Your task to perform on an android device: Open eBay Image 0: 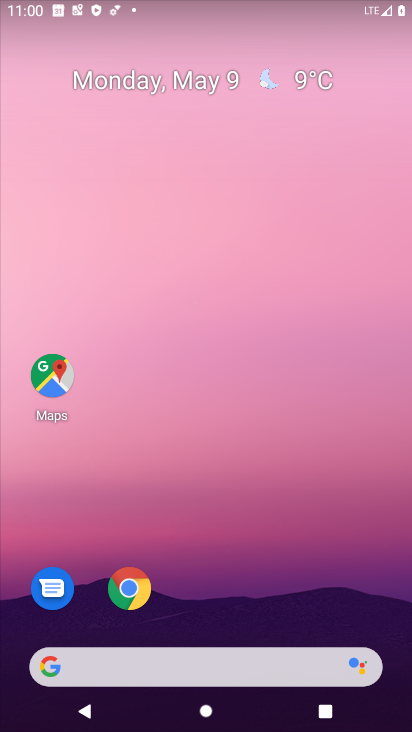
Step 0: drag from (149, 657) to (304, 108)
Your task to perform on an android device: Open eBay Image 1: 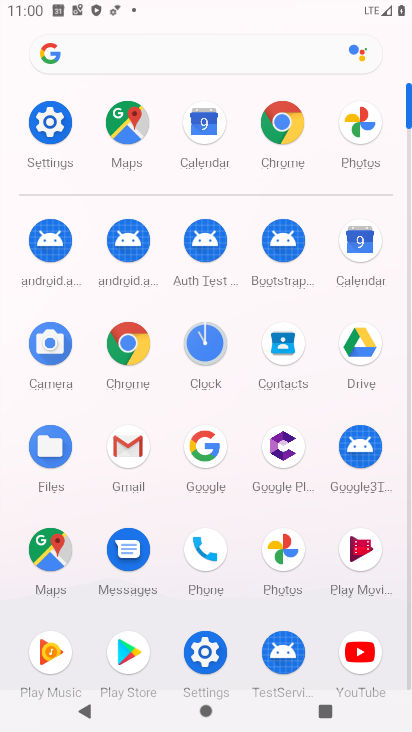
Step 1: click (281, 126)
Your task to perform on an android device: Open eBay Image 2: 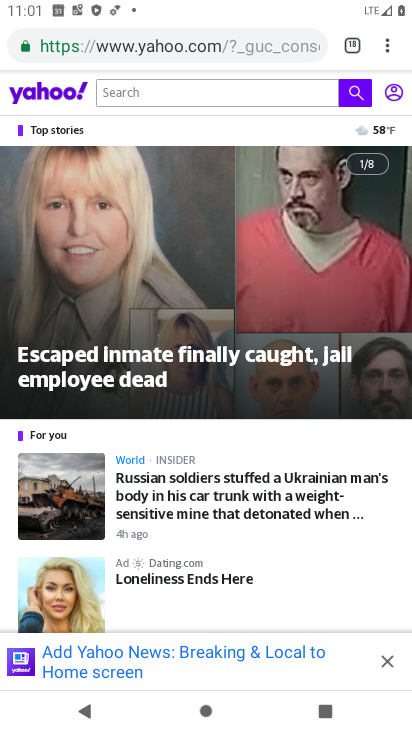
Step 2: drag from (390, 42) to (338, 90)
Your task to perform on an android device: Open eBay Image 3: 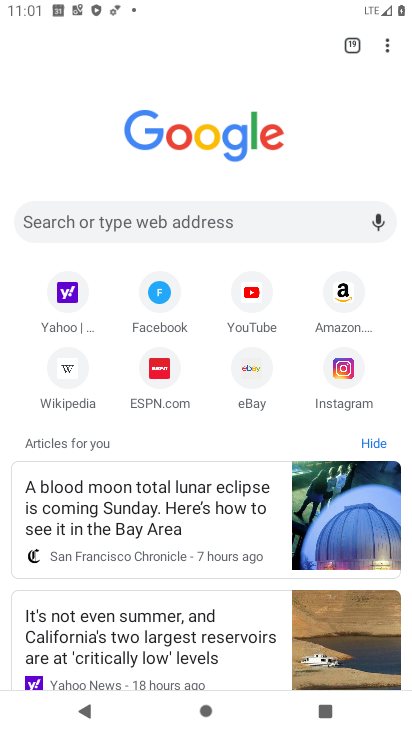
Step 3: click (253, 373)
Your task to perform on an android device: Open eBay Image 4: 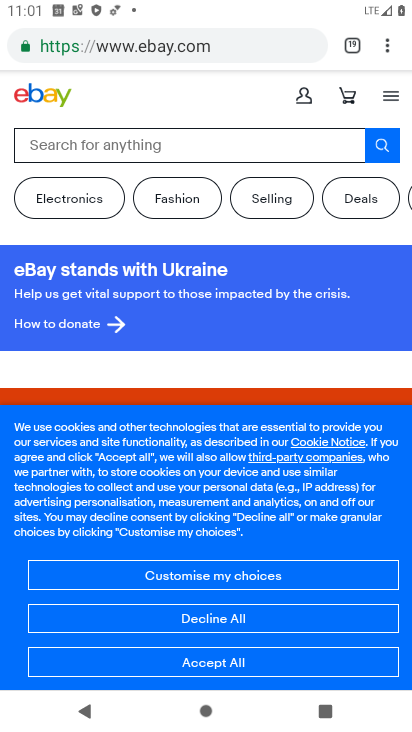
Step 4: task complete